Your task to perform on an android device: turn smart compose on in the gmail app Image 0: 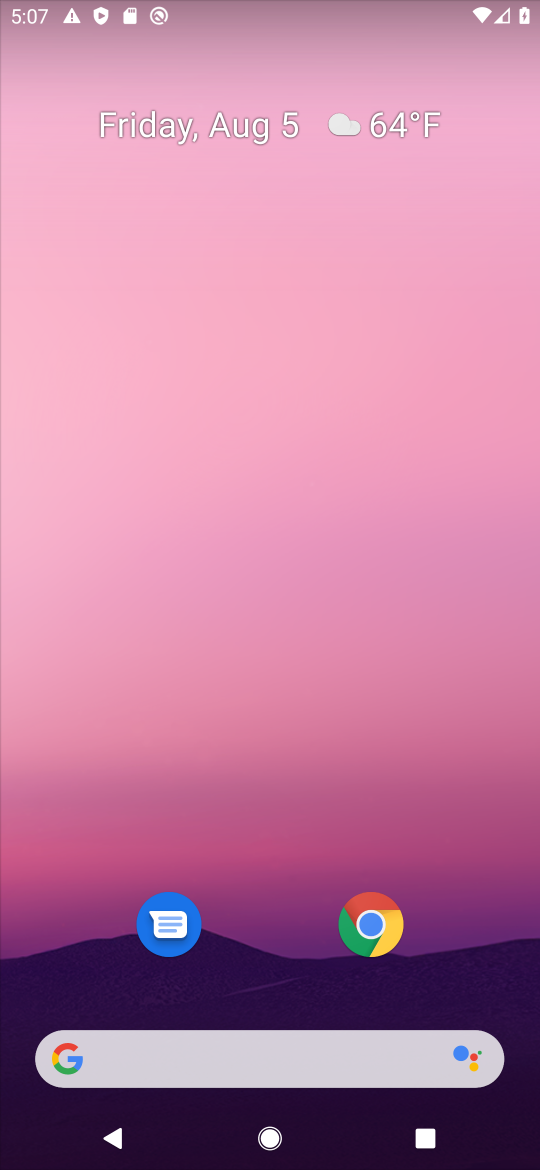
Step 0: press home button
Your task to perform on an android device: turn smart compose on in the gmail app Image 1: 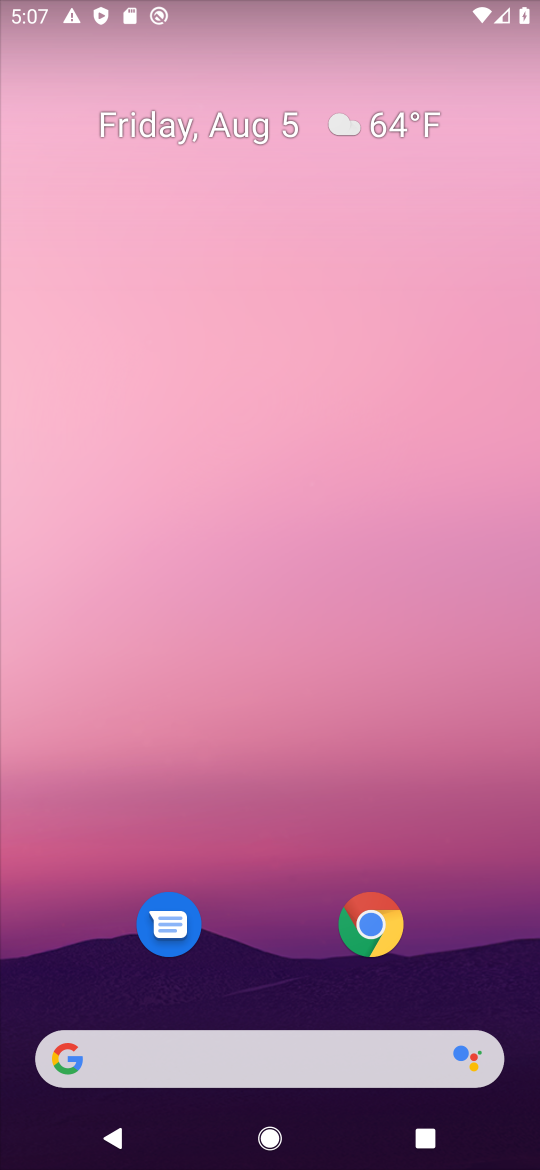
Step 1: drag from (201, 1134) to (160, 12)
Your task to perform on an android device: turn smart compose on in the gmail app Image 2: 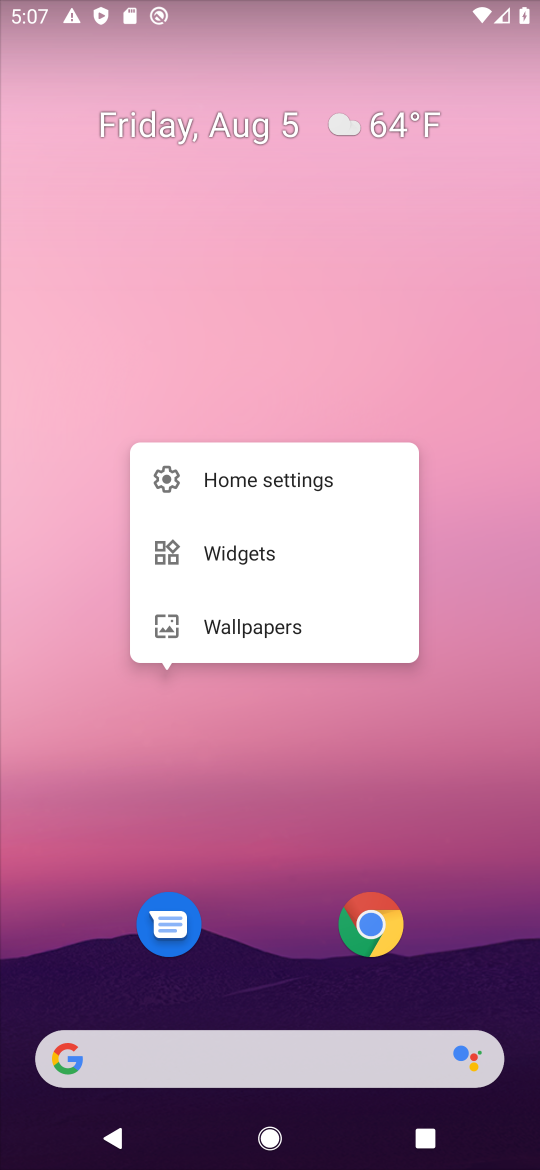
Step 2: drag from (196, 1134) to (173, 273)
Your task to perform on an android device: turn smart compose on in the gmail app Image 3: 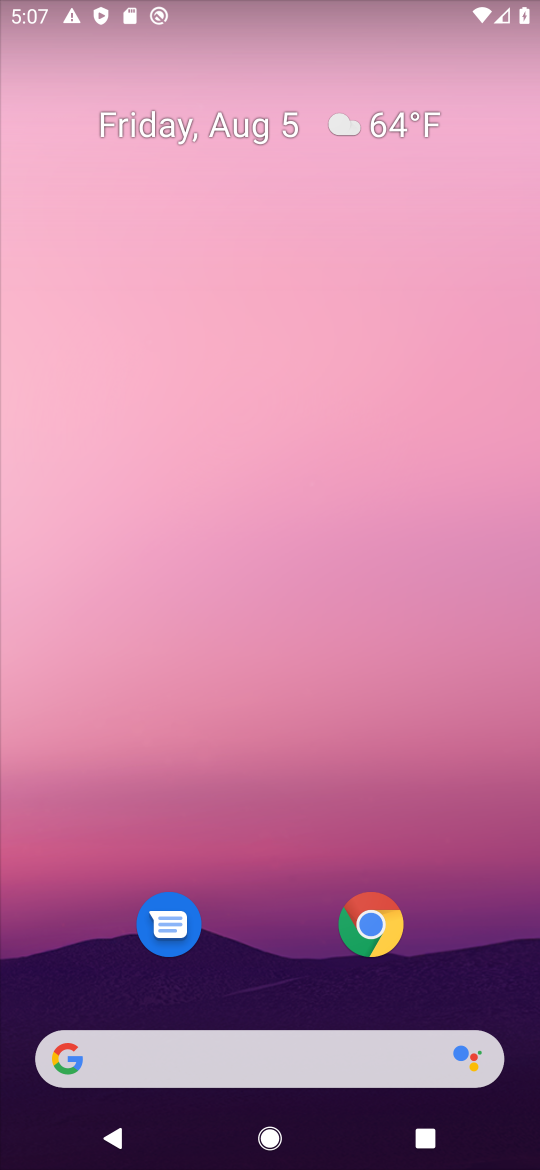
Step 3: drag from (150, 1120) to (200, 191)
Your task to perform on an android device: turn smart compose on in the gmail app Image 4: 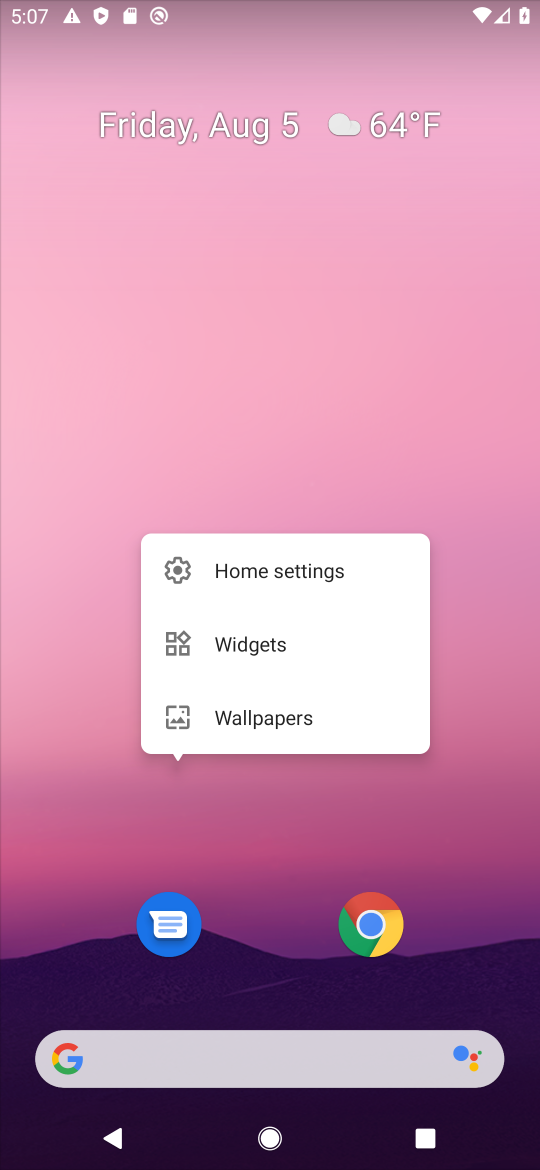
Step 4: drag from (170, 846) to (134, 66)
Your task to perform on an android device: turn smart compose on in the gmail app Image 5: 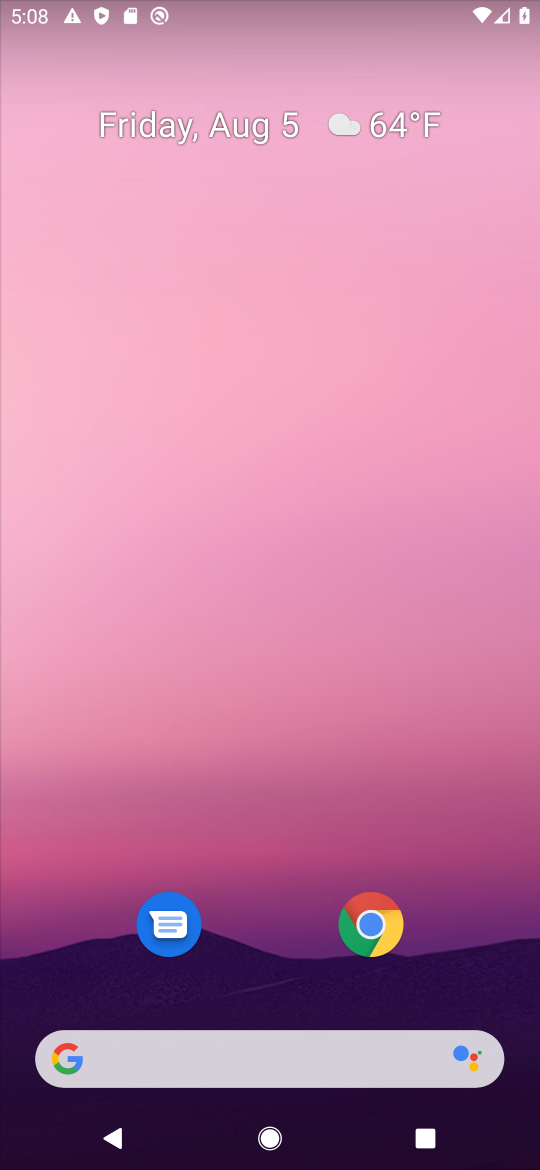
Step 5: drag from (337, 1116) to (153, 5)
Your task to perform on an android device: turn smart compose on in the gmail app Image 6: 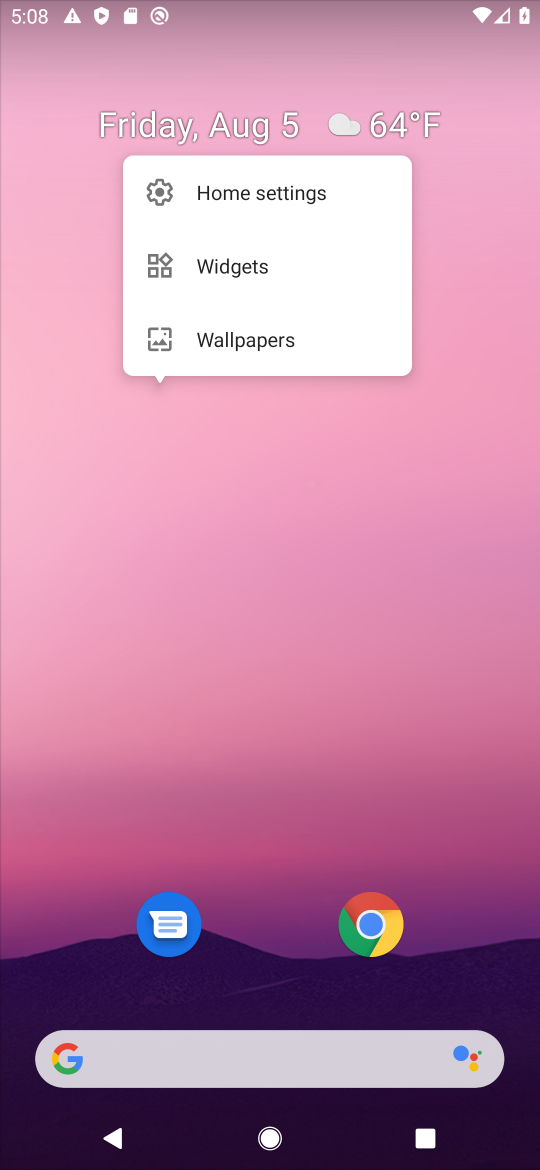
Step 6: drag from (179, 1132) to (224, 304)
Your task to perform on an android device: turn smart compose on in the gmail app Image 7: 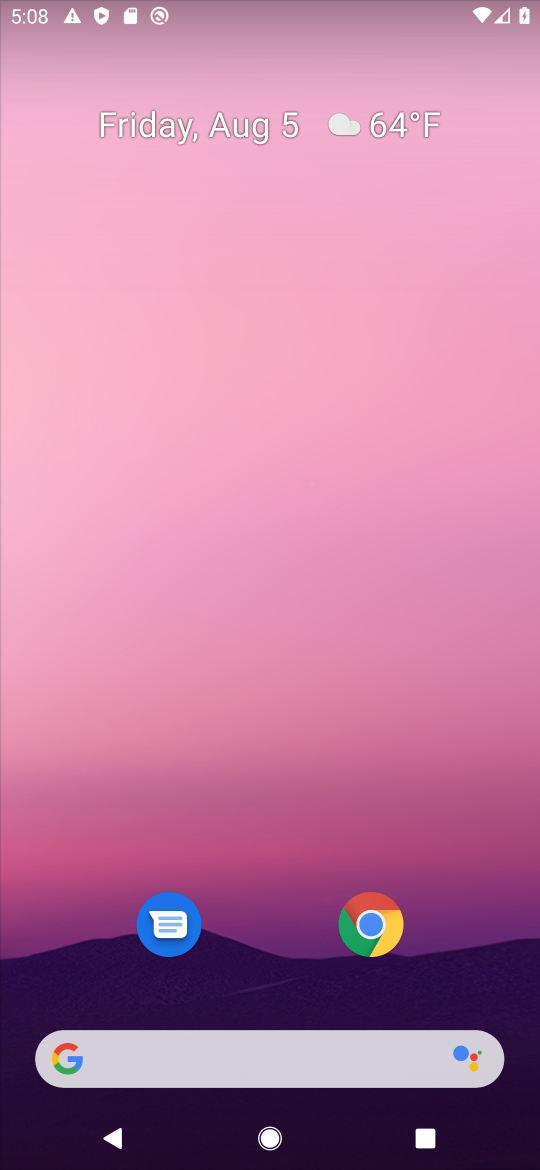
Step 7: drag from (181, 828) to (342, 92)
Your task to perform on an android device: turn smart compose on in the gmail app Image 8: 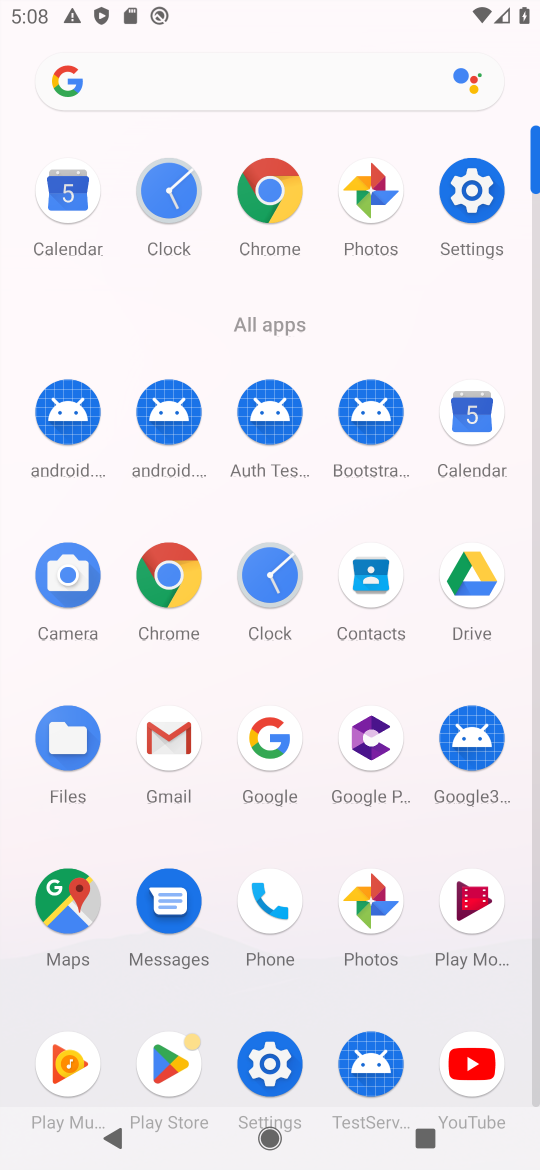
Step 8: click (500, 177)
Your task to perform on an android device: turn smart compose on in the gmail app Image 9: 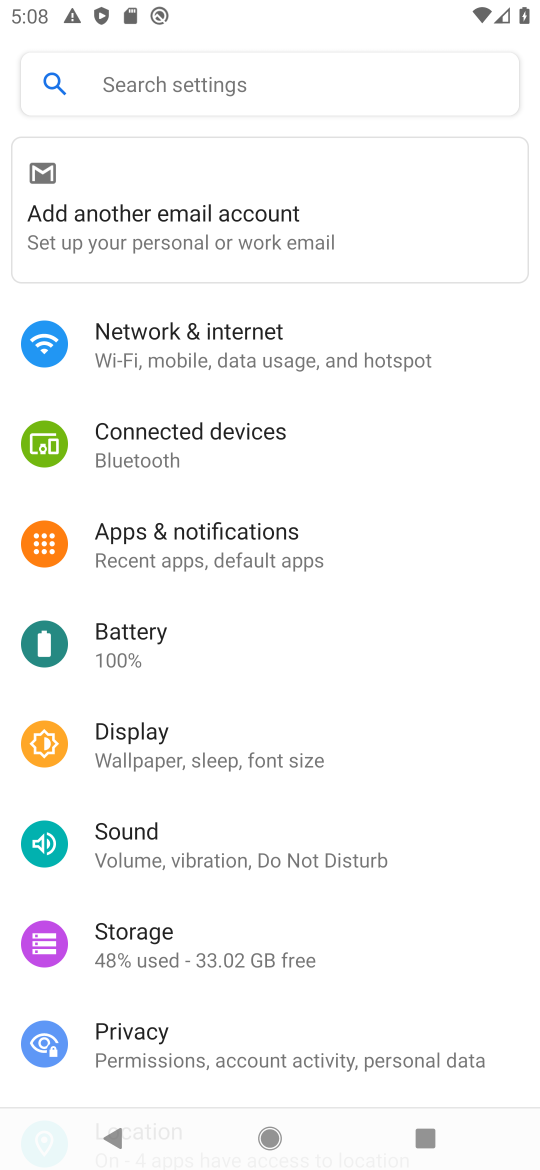
Step 9: press home button
Your task to perform on an android device: turn smart compose on in the gmail app Image 10: 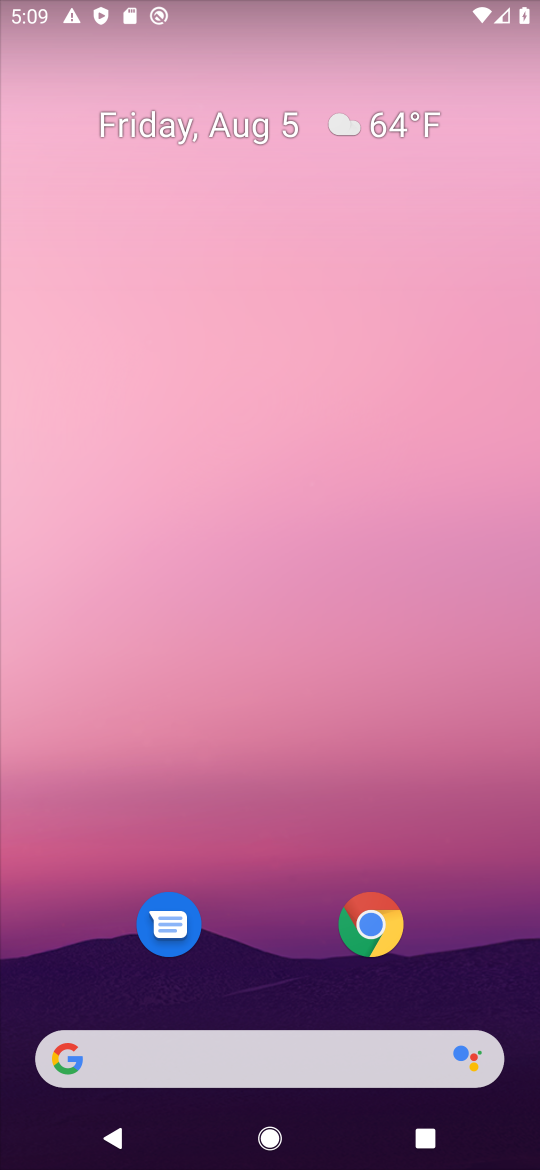
Step 10: drag from (171, 1028) to (248, 578)
Your task to perform on an android device: turn smart compose on in the gmail app Image 11: 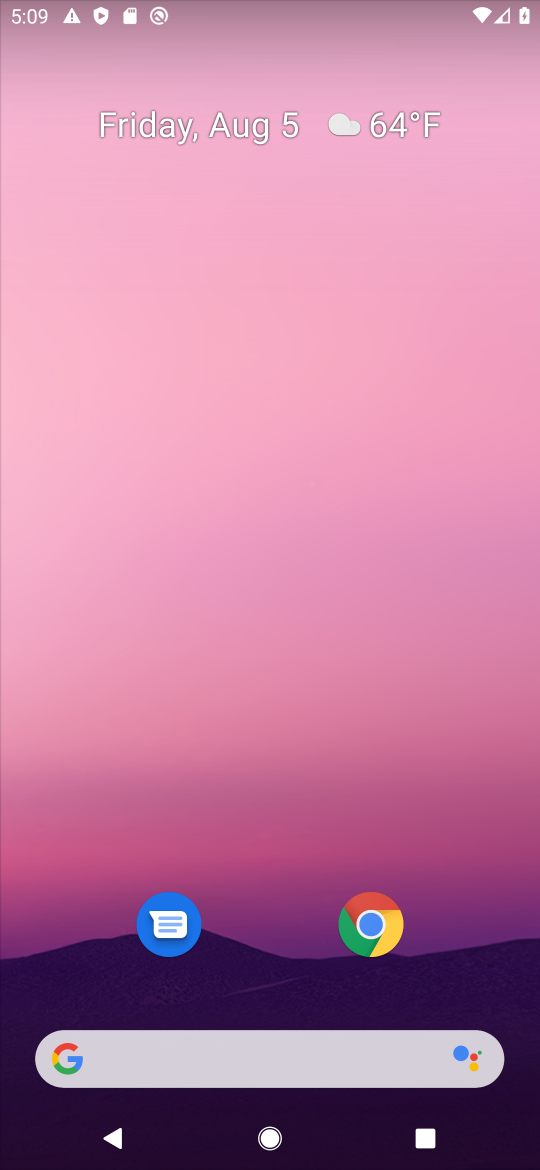
Step 11: drag from (142, 1128) to (134, 381)
Your task to perform on an android device: turn smart compose on in the gmail app Image 12: 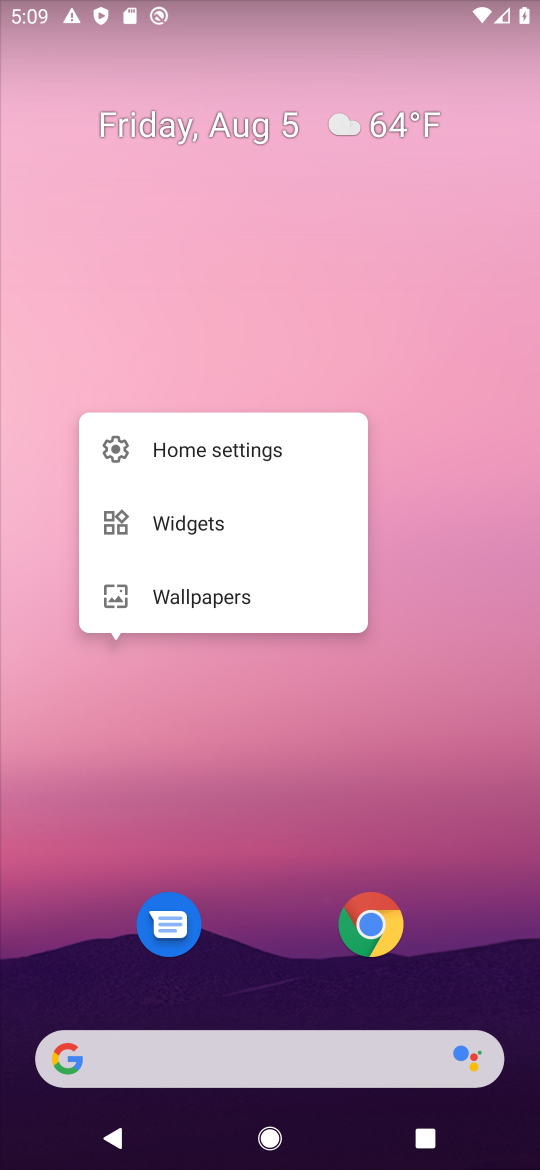
Step 12: drag from (189, 1145) to (191, 170)
Your task to perform on an android device: turn smart compose on in the gmail app Image 13: 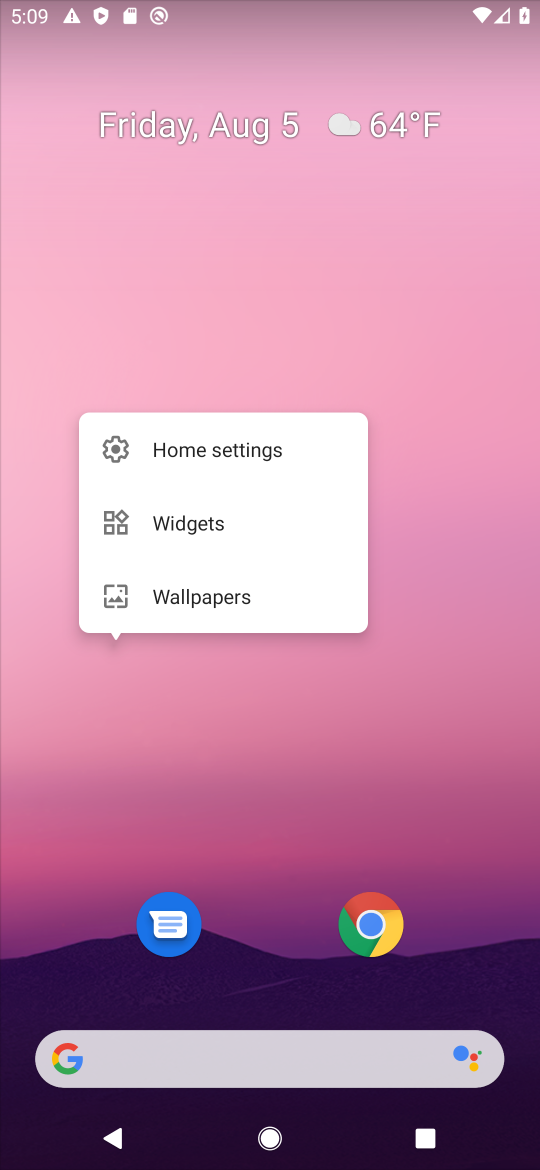
Step 13: drag from (322, 1144) to (276, 425)
Your task to perform on an android device: turn smart compose on in the gmail app Image 14: 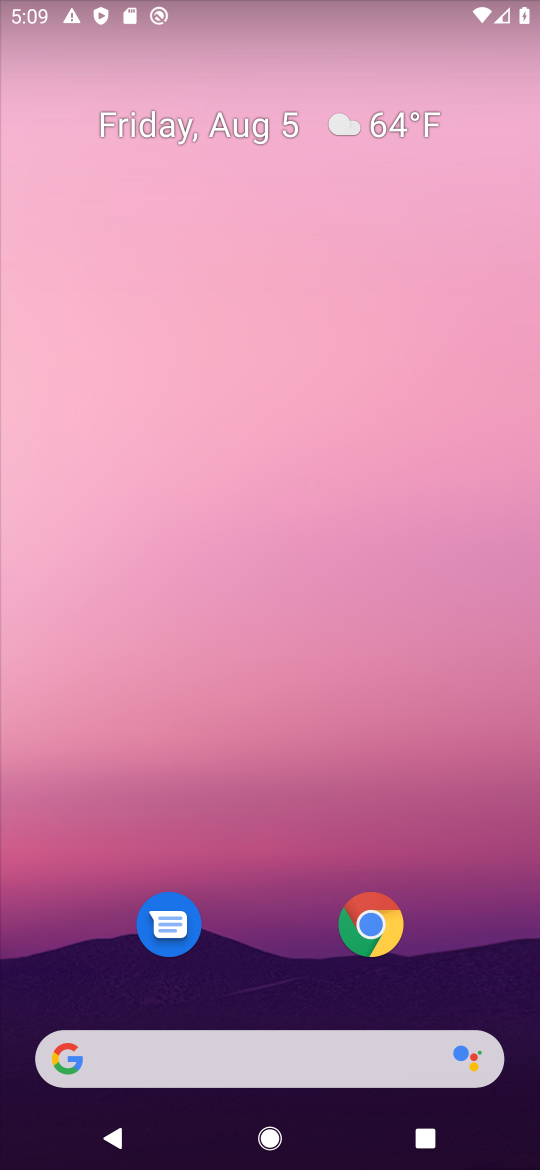
Step 14: drag from (329, 1028) to (388, 55)
Your task to perform on an android device: turn smart compose on in the gmail app Image 15: 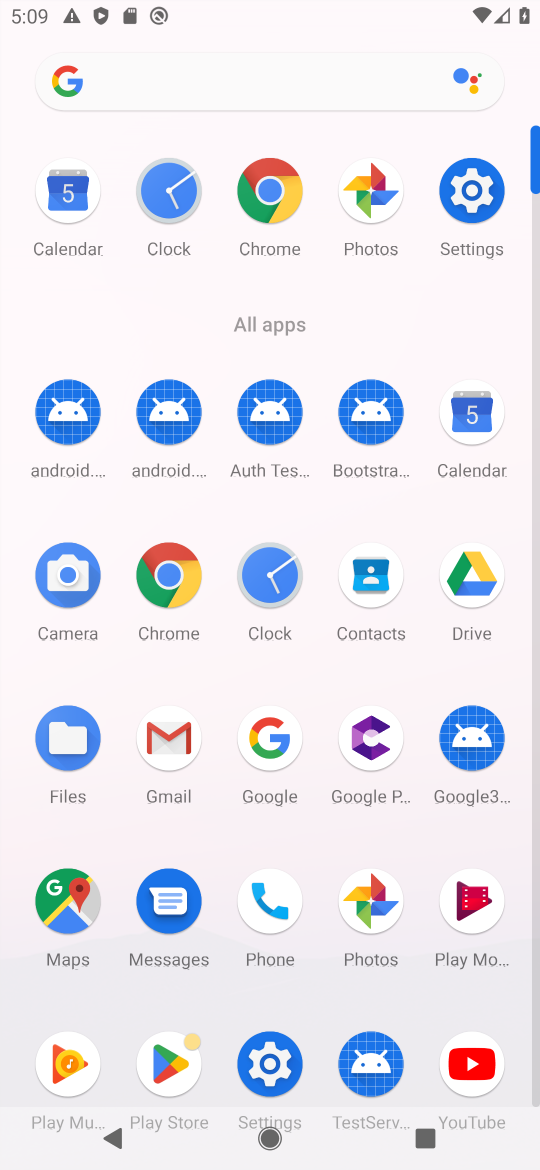
Step 15: click (183, 748)
Your task to perform on an android device: turn smart compose on in the gmail app Image 16: 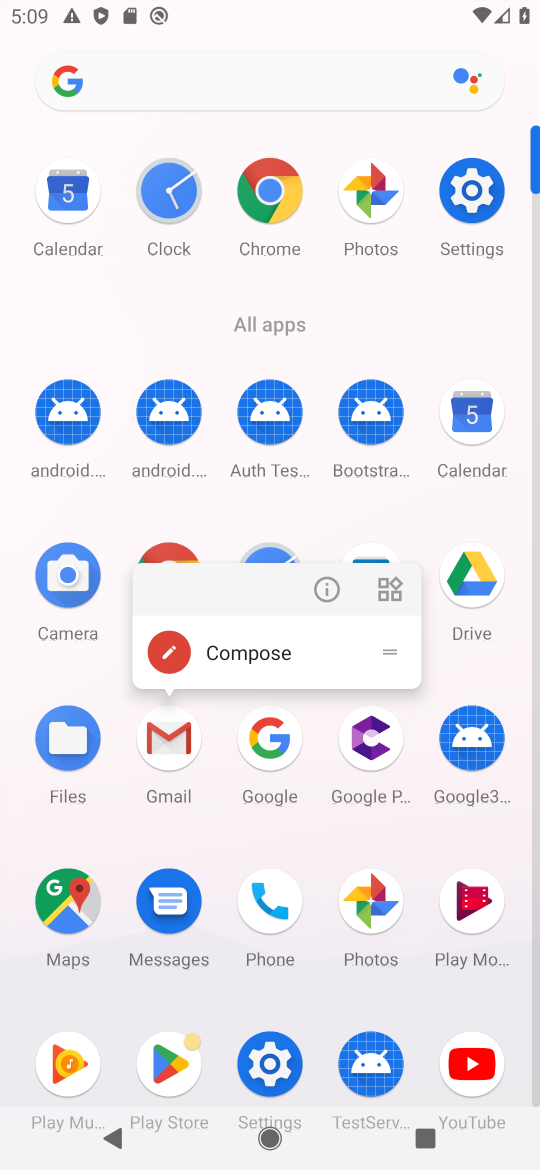
Step 16: click (183, 748)
Your task to perform on an android device: turn smart compose on in the gmail app Image 17: 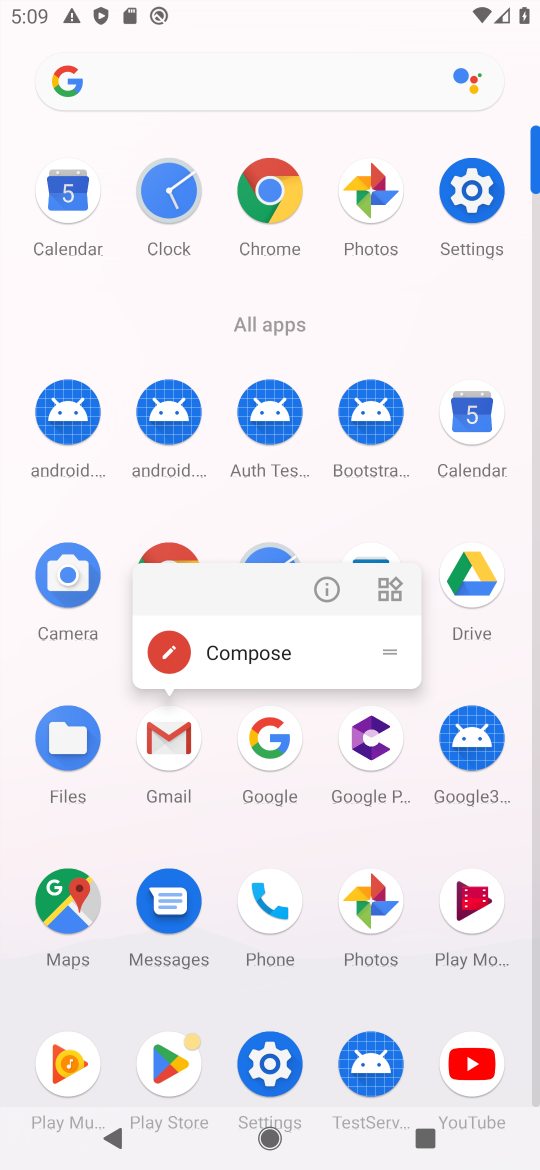
Step 17: click (183, 748)
Your task to perform on an android device: turn smart compose on in the gmail app Image 18: 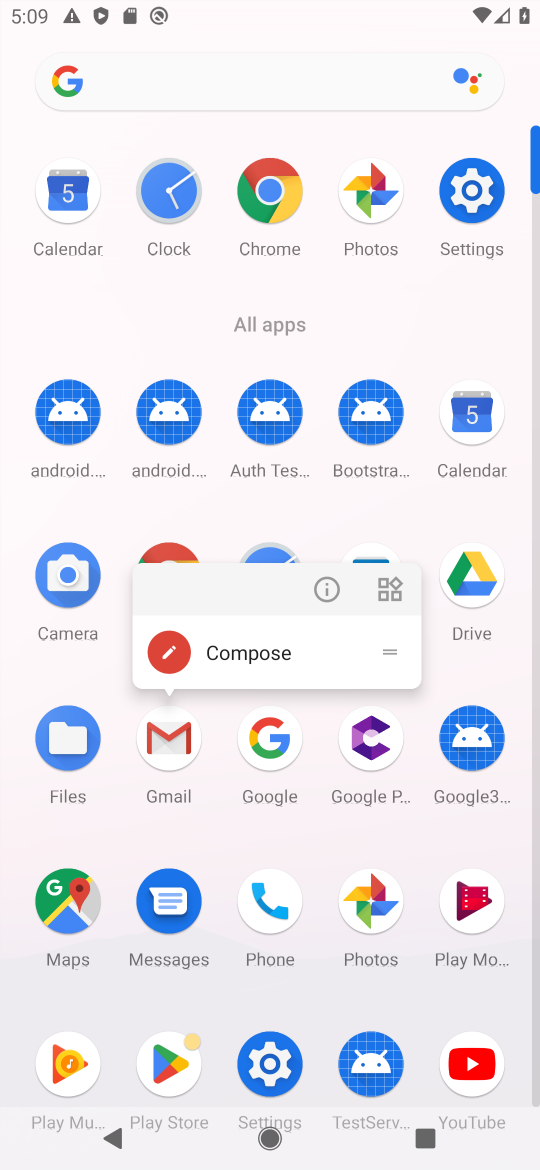
Step 18: click (183, 748)
Your task to perform on an android device: turn smart compose on in the gmail app Image 19: 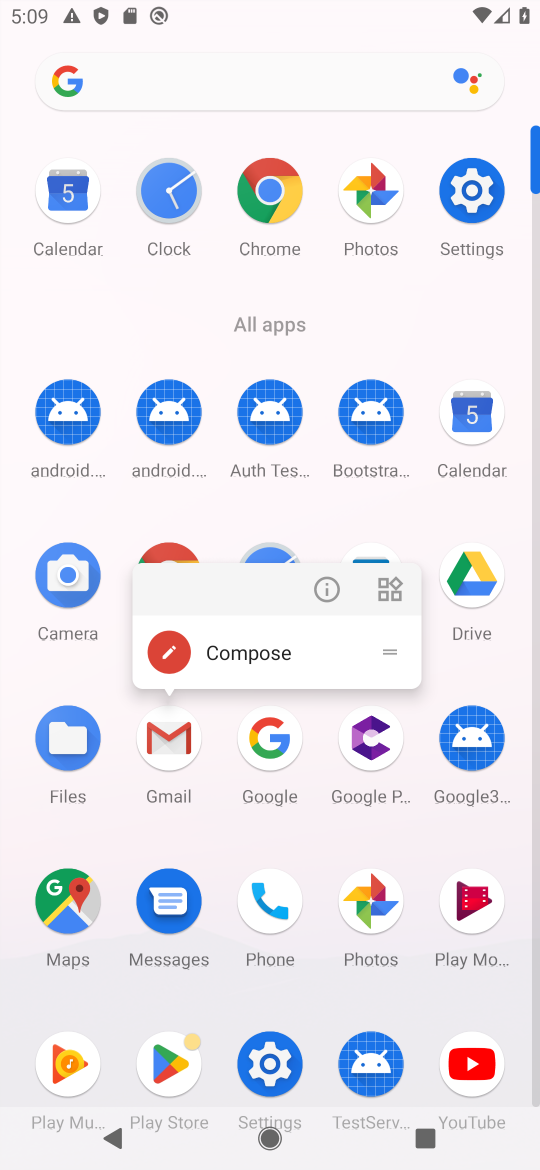
Step 19: click (183, 748)
Your task to perform on an android device: turn smart compose on in the gmail app Image 20: 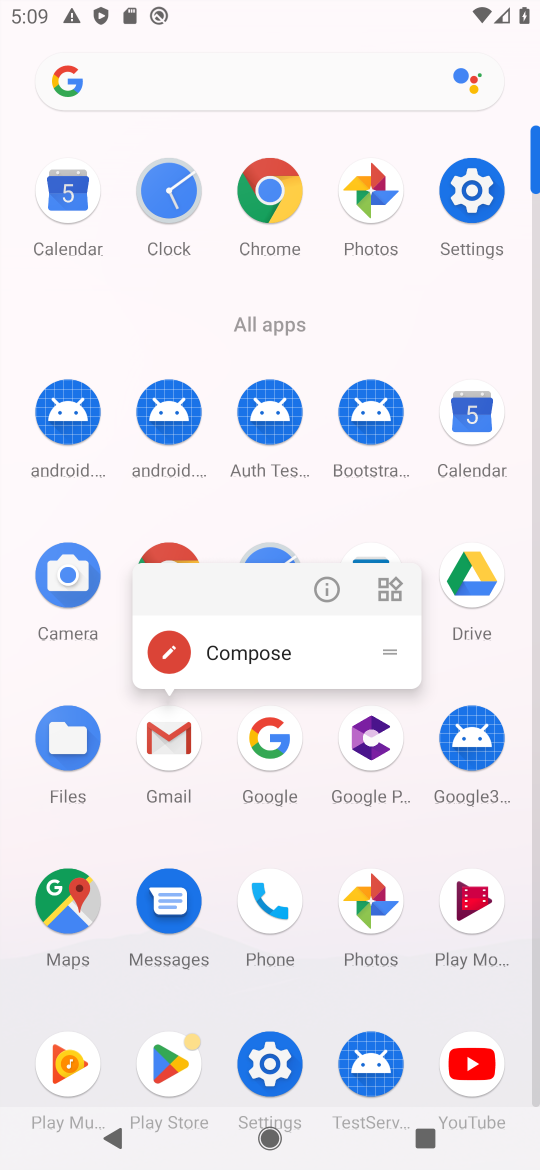
Step 20: click (178, 753)
Your task to perform on an android device: turn smart compose on in the gmail app Image 21: 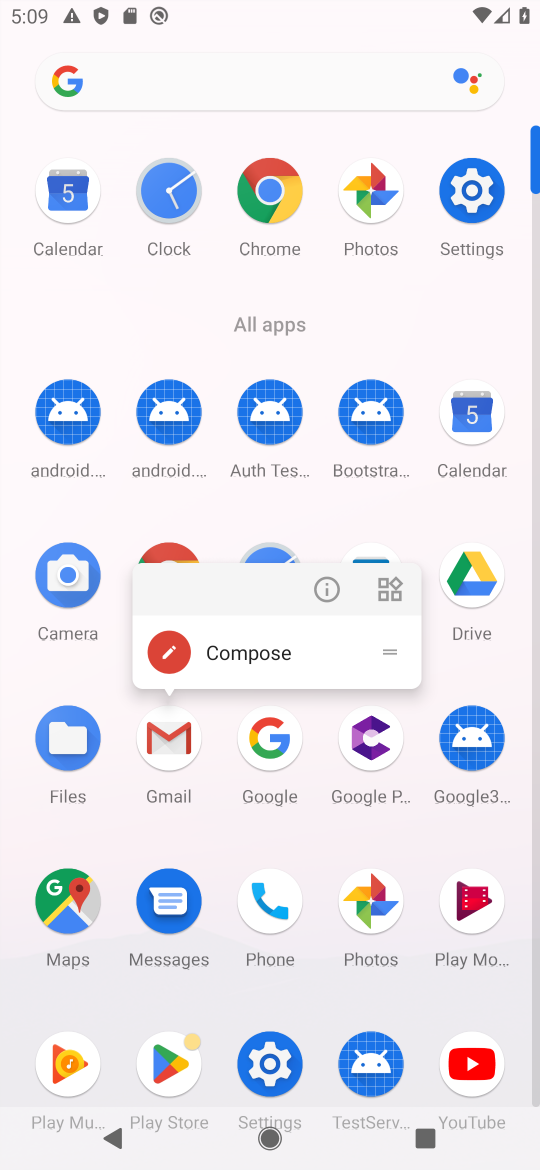
Step 21: click (178, 753)
Your task to perform on an android device: turn smart compose on in the gmail app Image 22: 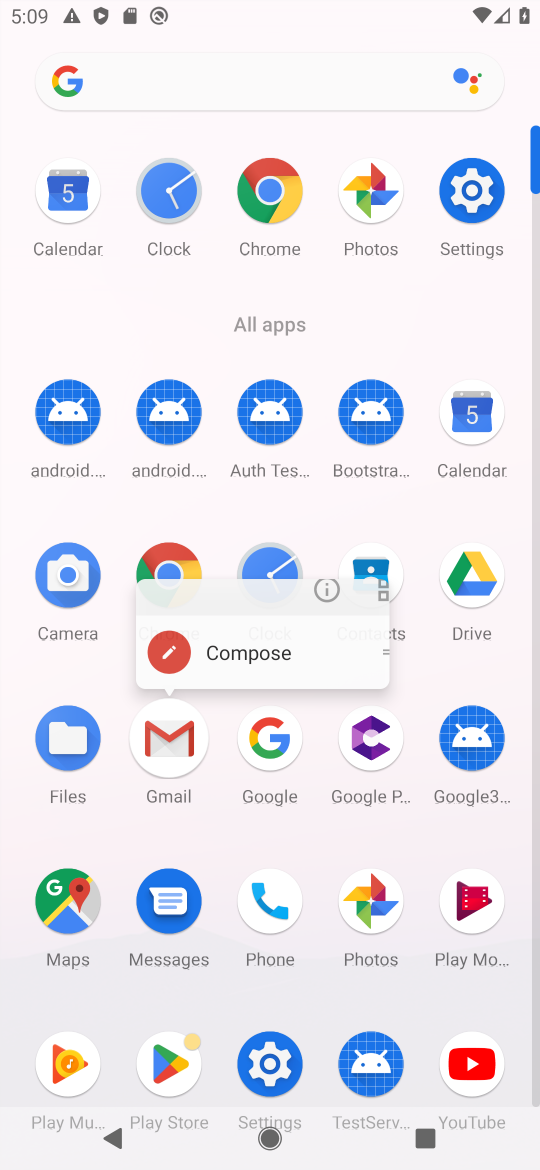
Step 22: click (178, 753)
Your task to perform on an android device: turn smart compose on in the gmail app Image 23: 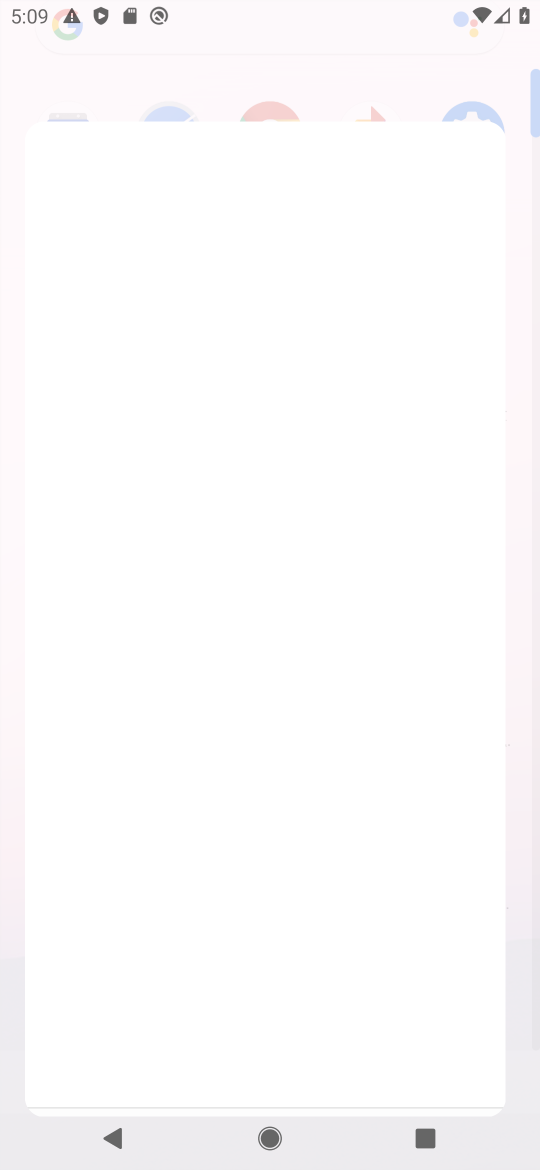
Step 23: click (165, 735)
Your task to perform on an android device: turn smart compose on in the gmail app Image 24: 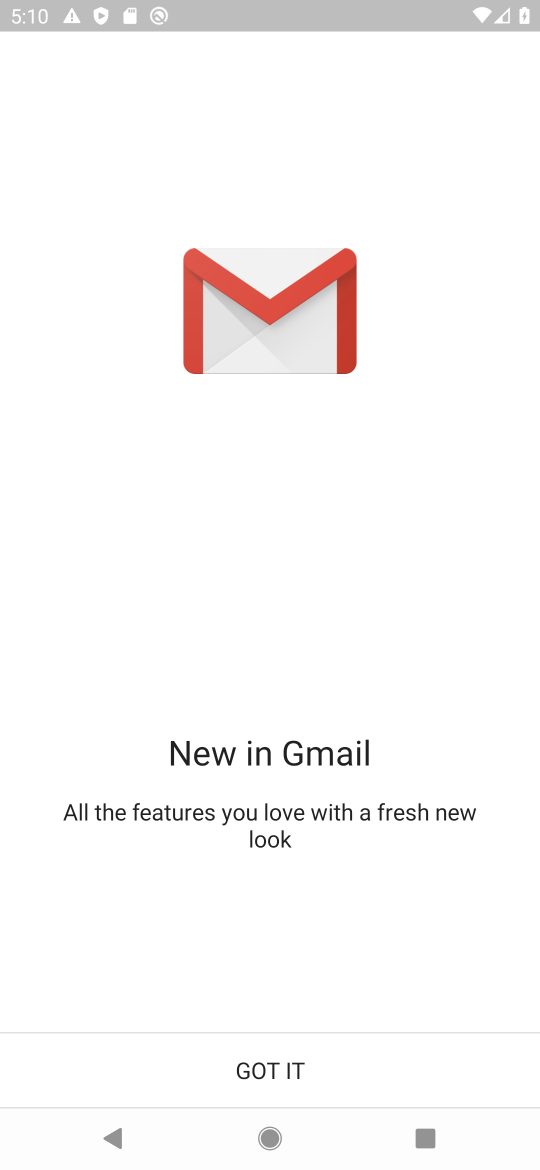
Step 24: click (231, 1056)
Your task to perform on an android device: turn smart compose on in the gmail app Image 25: 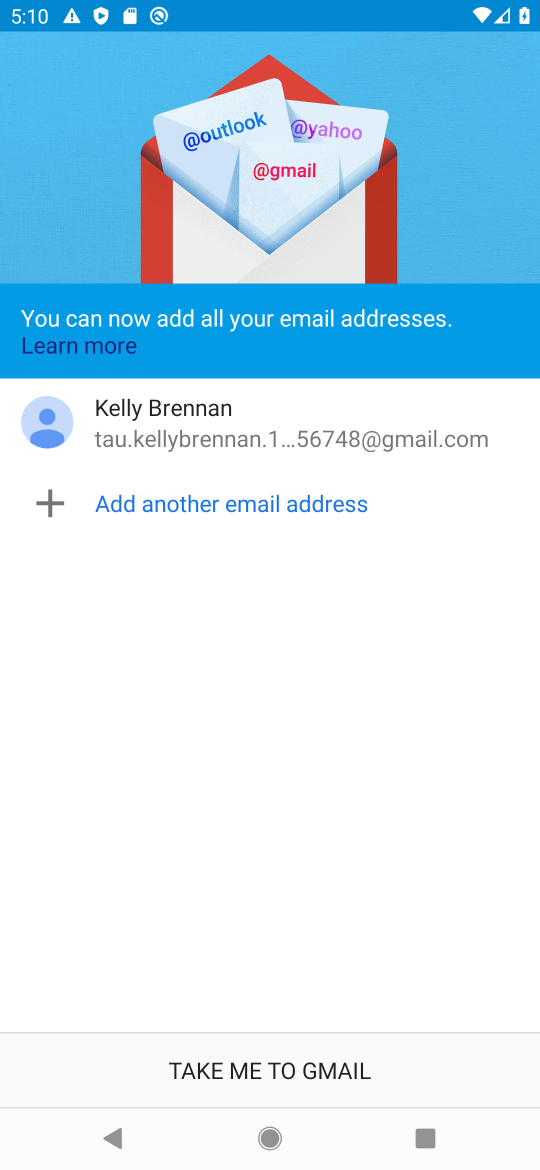
Step 25: click (263, 1076)
Your task to perform on an android device: turn smart compose on in the gmail app Image 26: 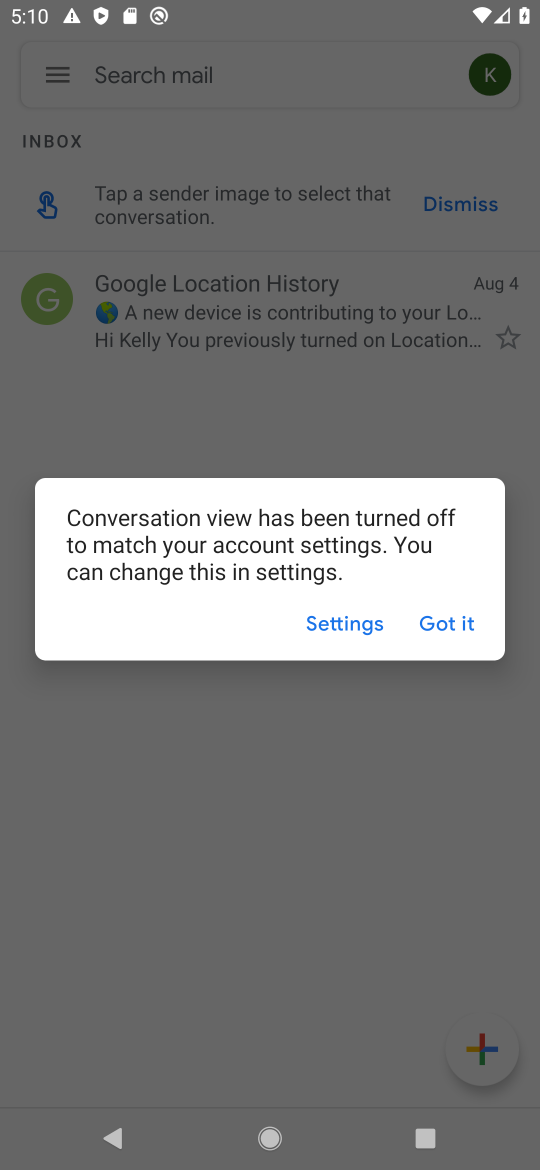
Step 26: click (460, 636)
Your task to perform on an android device: turn smart compose on in the gmail app Image 27: 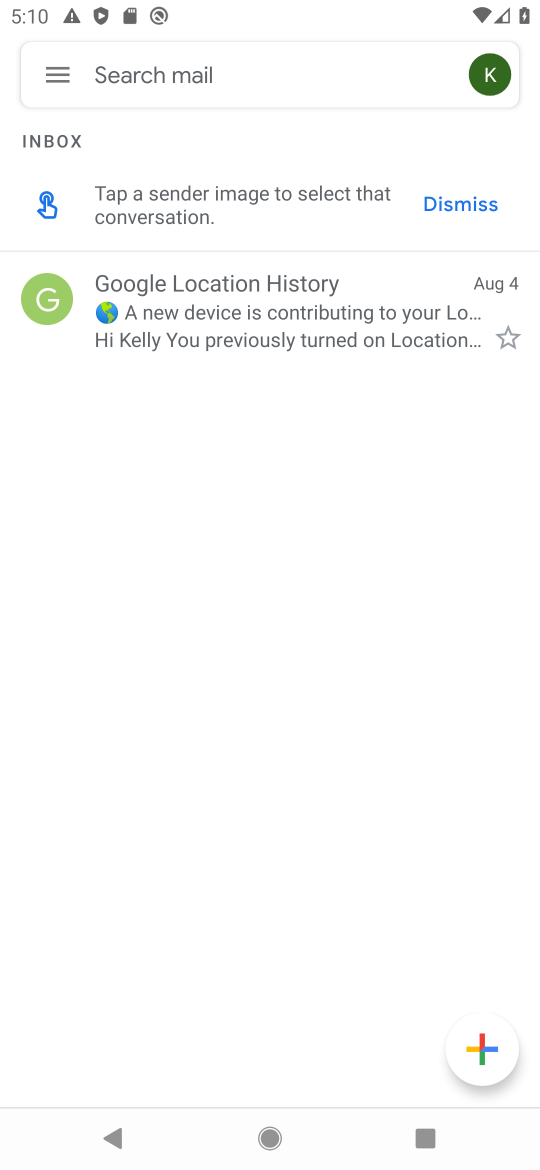
Step 27: click (62, 68)
Your task to perform on an android device: turn smart compose on in the gmail app Image 28: 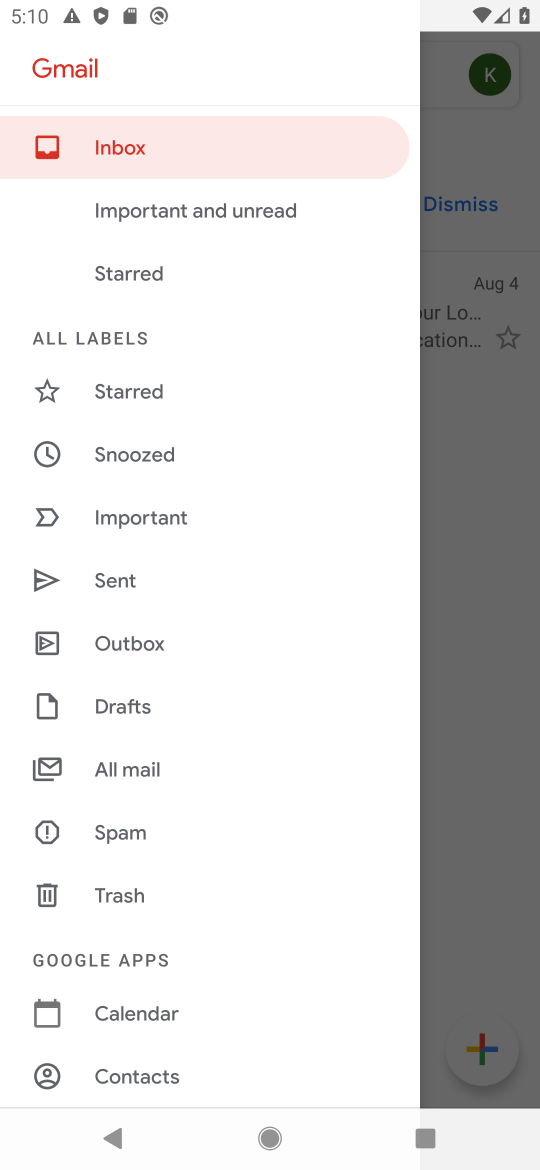
Step 28: drag from (123, 967) to (11, 1019)
Your task to perform on an android device: turn smart compose on in the gmail app Image 29: 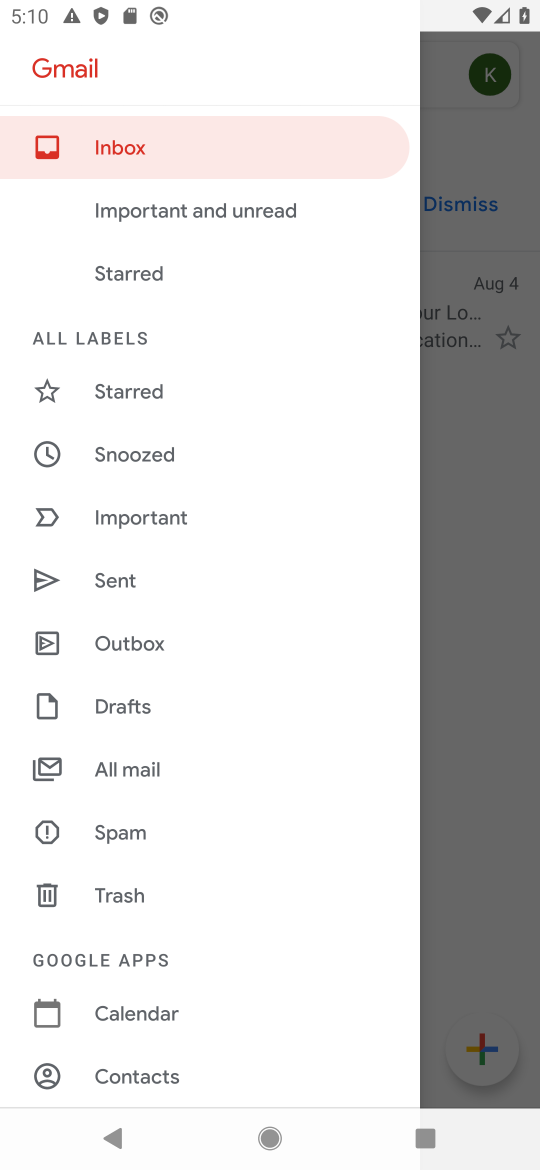
Step 29: drag from (210, 1026) to (135, 346)
Your task to perform on an android device: turn smart compose on in the gmail app Image 30: 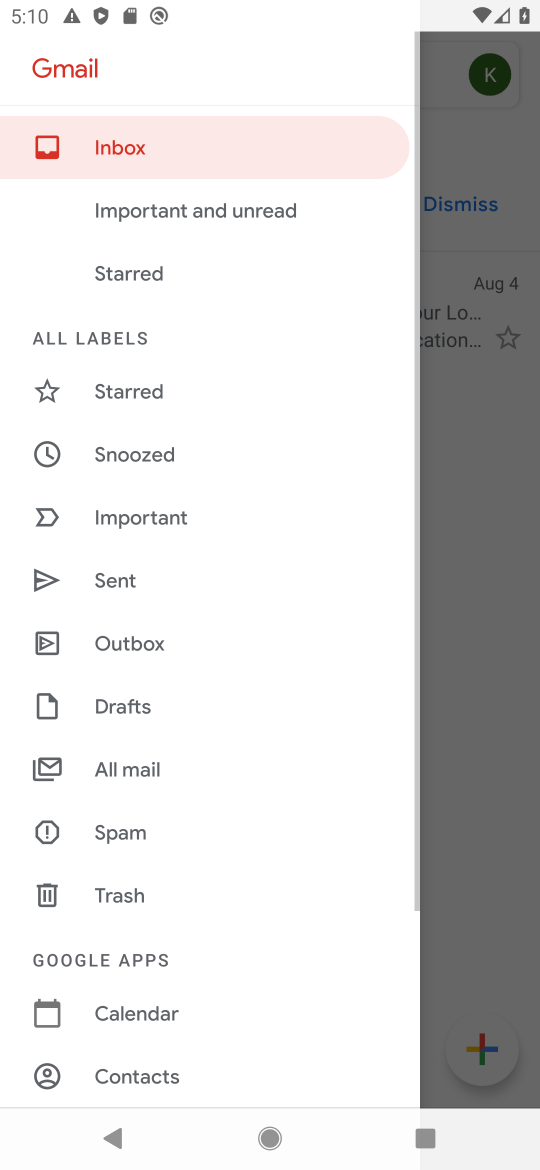
Step 30: drag from (151, 986) to (85, 412)
Your task to perform on an android device: turn smart compose on in the gmail app Image 31: 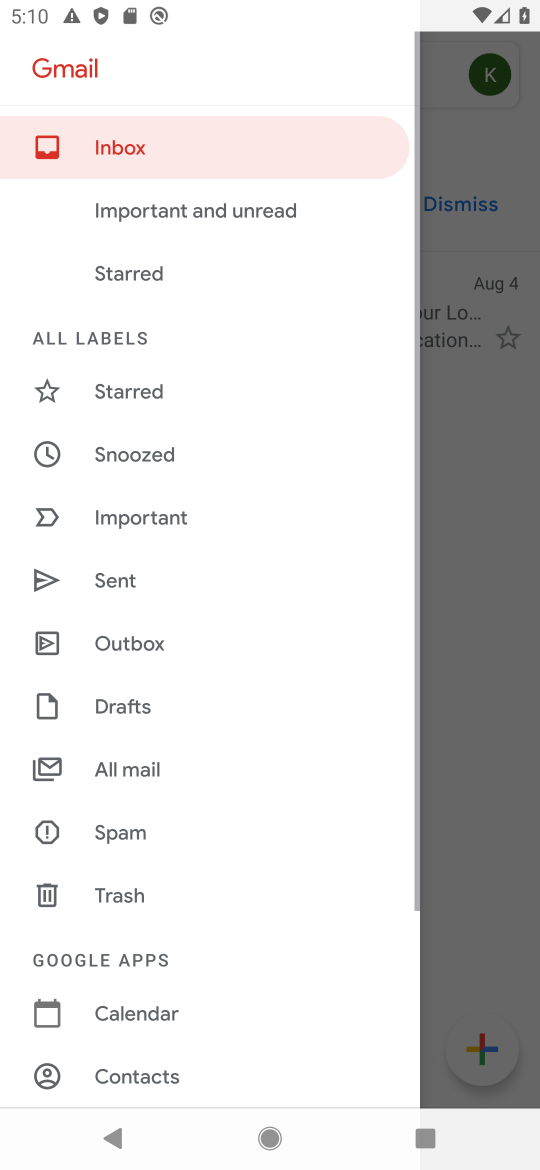
Step 31: drag from (188, 912) to (197, 476)
Your task to perform on an android device: turn smart compose on in the gmail app Image 32: 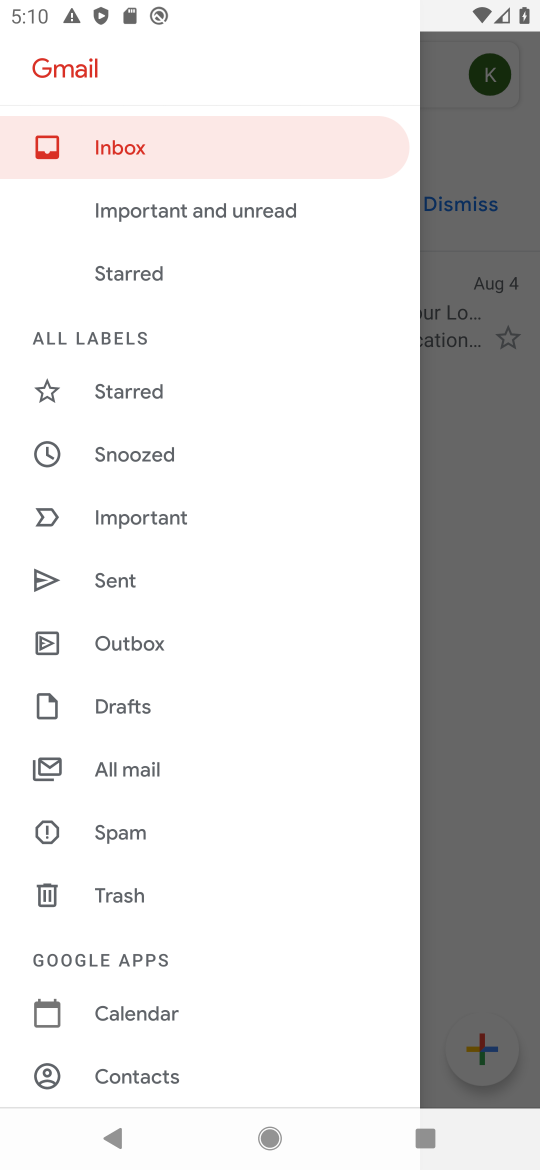
Step 32: drag from (350, 927) to (389, 131)
Your task to perform on an android device: turn smart compose on in the gmail app Image 33: 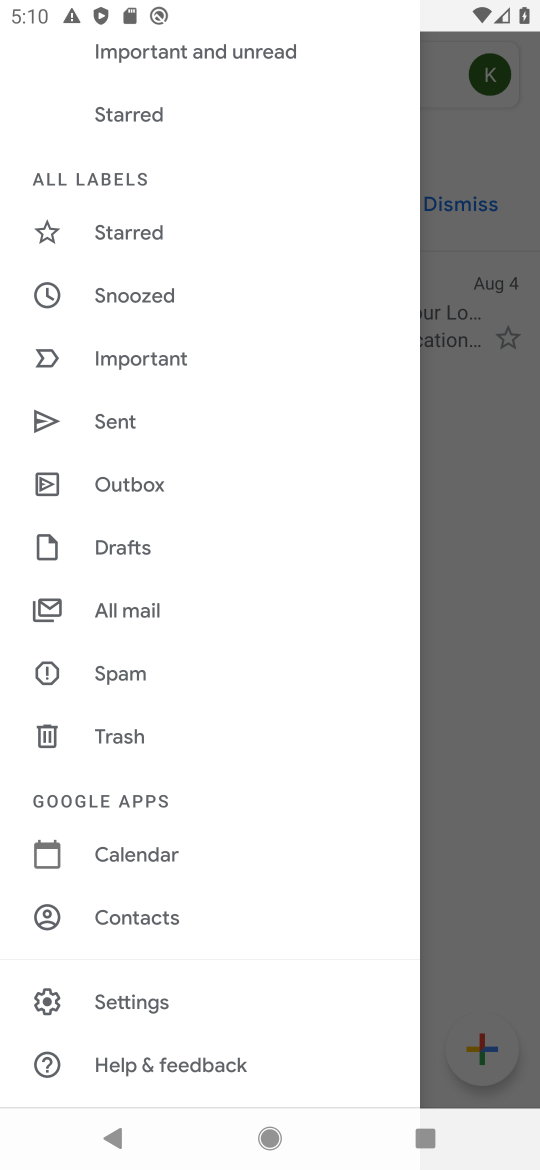
Step 33: click (152, 1002)
Your task to perform on an android device: turn smart compose on in the gmail app Image 34: 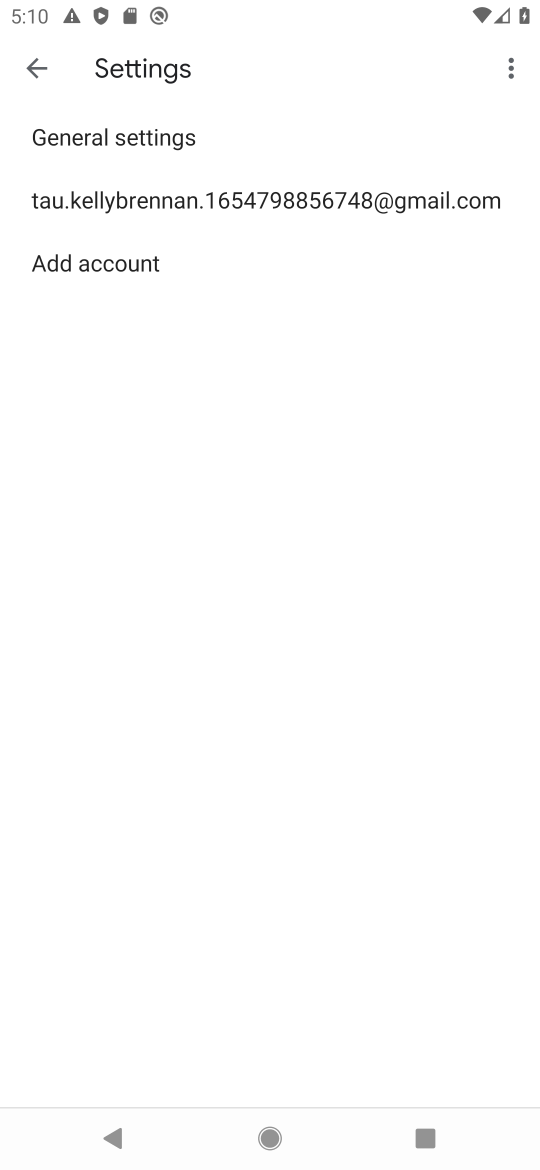
Step 34: click (391, 185)
Your task to perform on an android device: turn smart compose on in the gmail app Image 35: 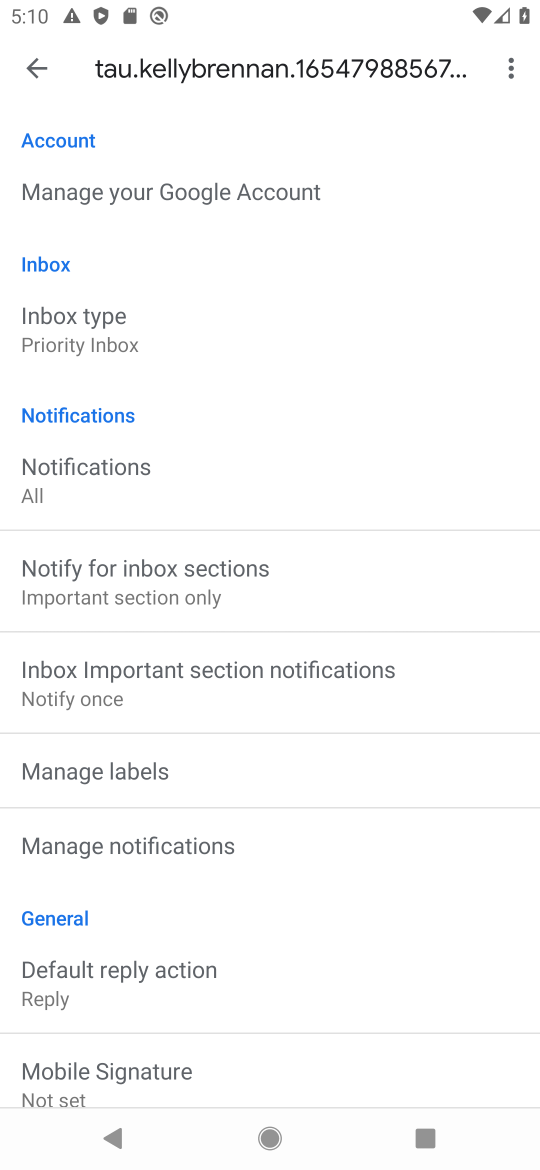
Step 35: task complete